Your task to perform on an android device: Go to battery settings Image 0: 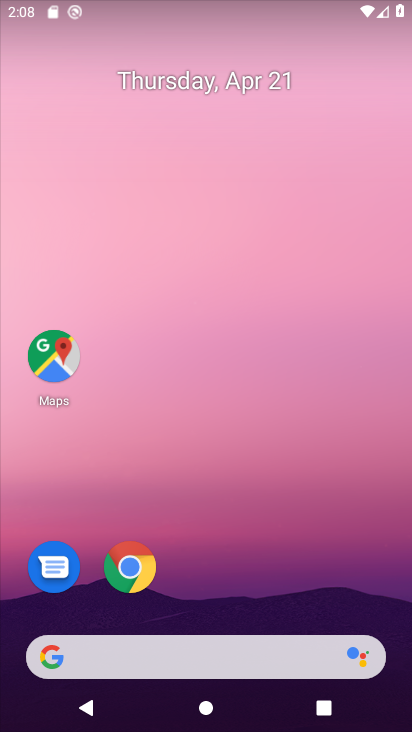
Step 0: drag from (223, 523) to (130, 4)
Your task to perform on an android device: Go to battery settings Image 1: 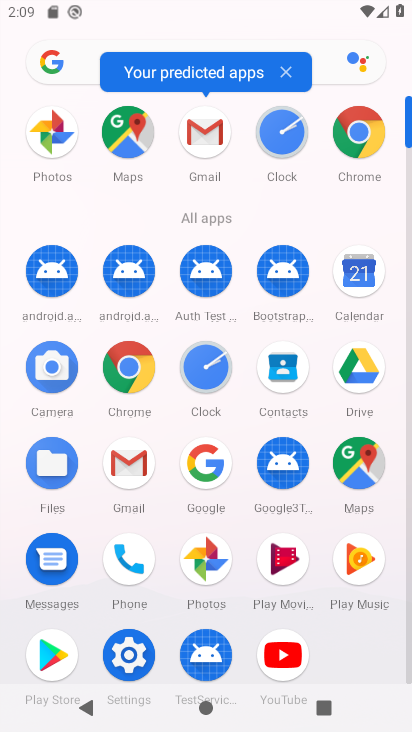
Step 1: drag from (7, 460) to (12, 173)
Your task to perform on an android device: Go to battery settings Image 2: 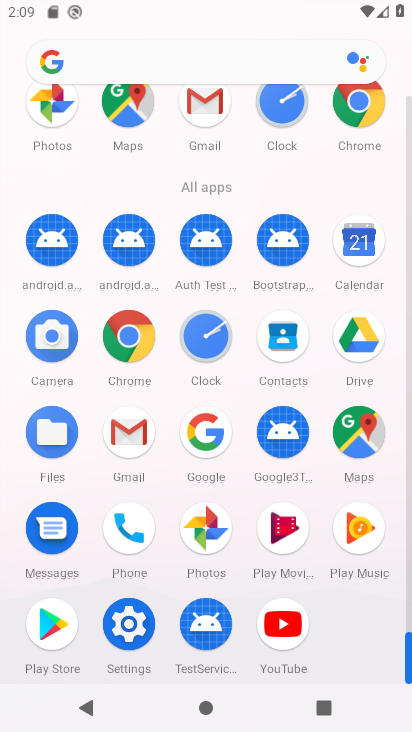
Step 2: click (128, 620)
Your task to perform on an android device: Go to battery settings Image 3: 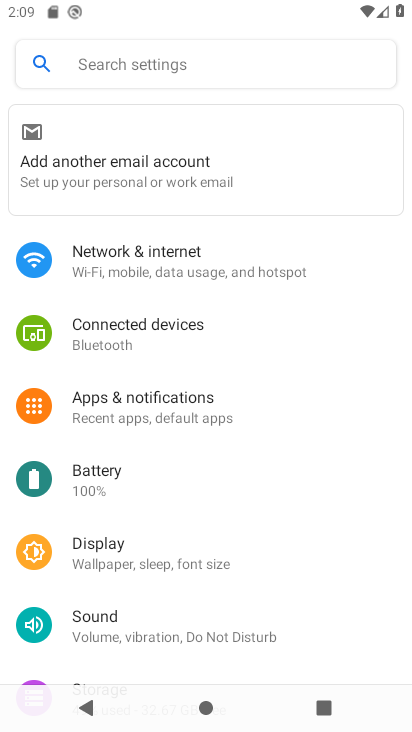
Step 3: click (119, 466)
Your task to perform on an android device: Go to battery settings Image 4: 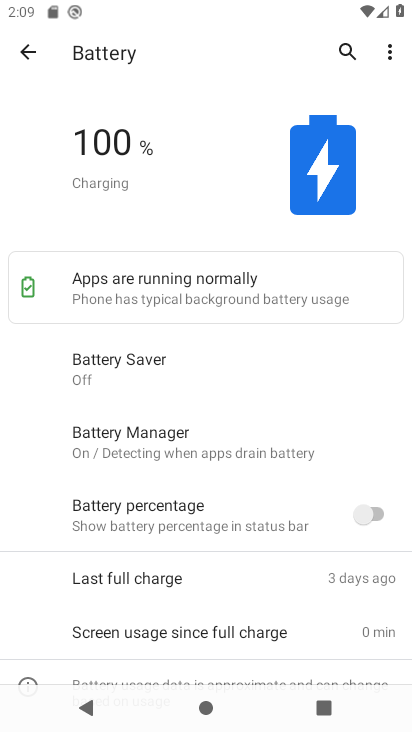
Step 4: task complete